Your task to perform on an android device: toggle data saver in the chrome app Image 0: 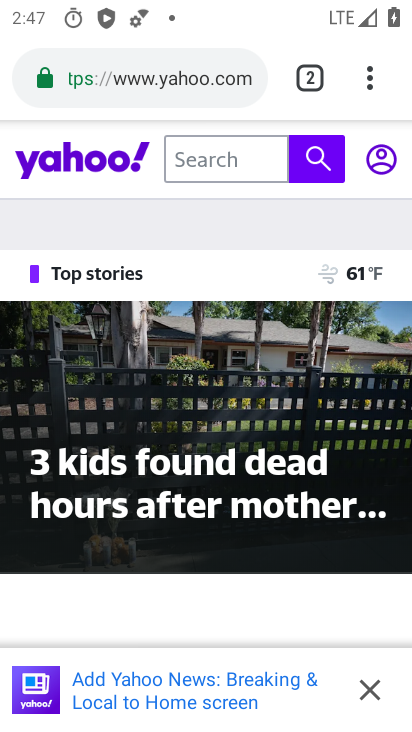
Step 0: press home button
Your task to perform on an android device: toggle data saver in the chrome app Image 1: 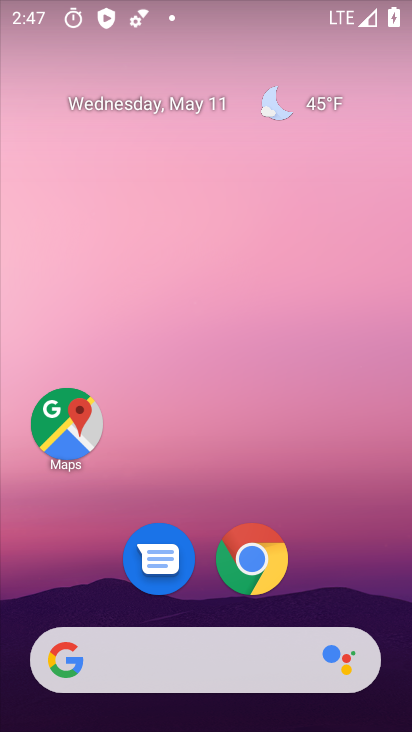
Step 1: click (242, 557)
Your task to perform on an android device: toggle data saver in the chrome app Image 2: 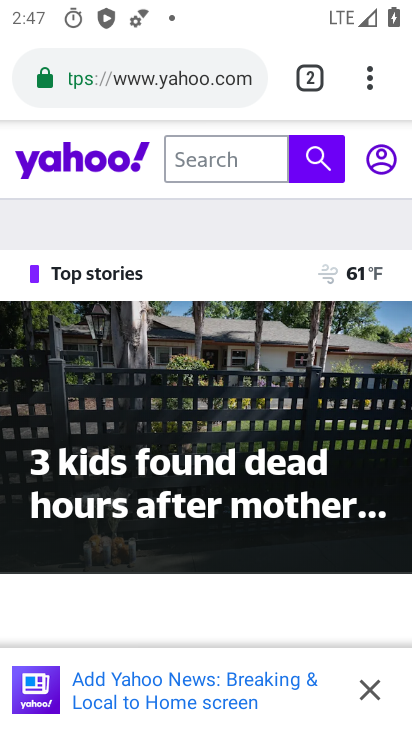
Step 2: click (367, 85)
Your task to perform on an android device: toggle data saver in the chrome app Image 3: 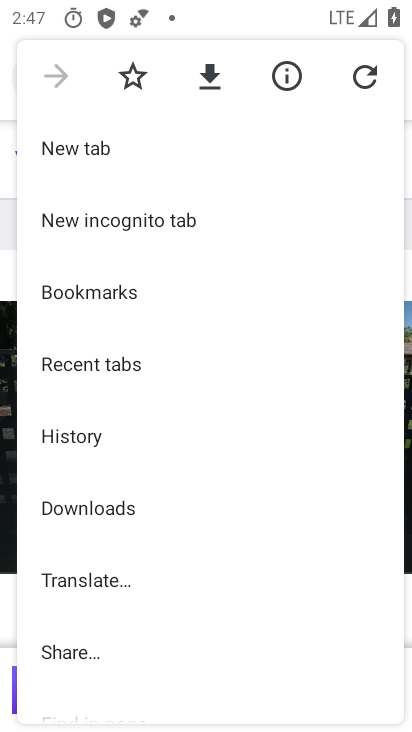
Step 3: drag from (182, 600) to (164, 243)
Your task to perform on an android device: toggle data saver in the chrome app Image 4: 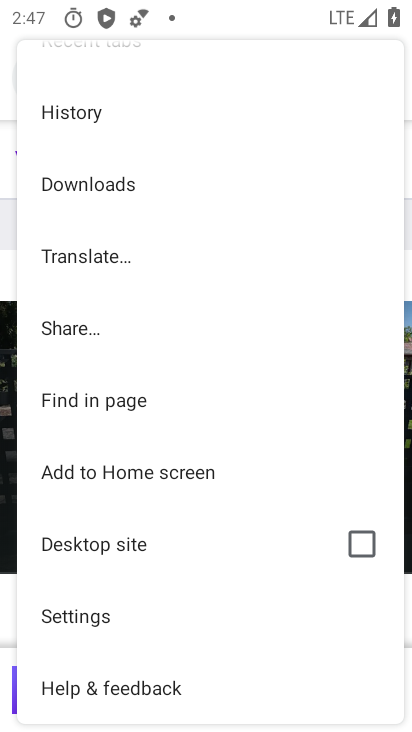
Step 4: click (115, 629)
Your task to perform on an android device: toggle data saver in the chrome app Image 5: 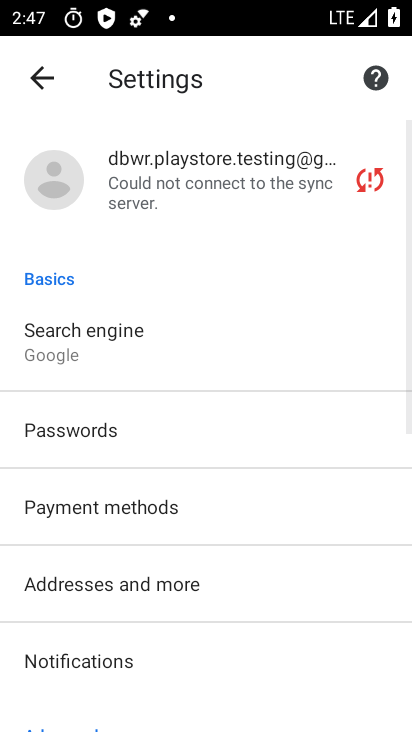
Step 5: drag from (148, 655) to (166, 238)
Your task to perform on an android device: toggle data saver in the chrome app Image 6: 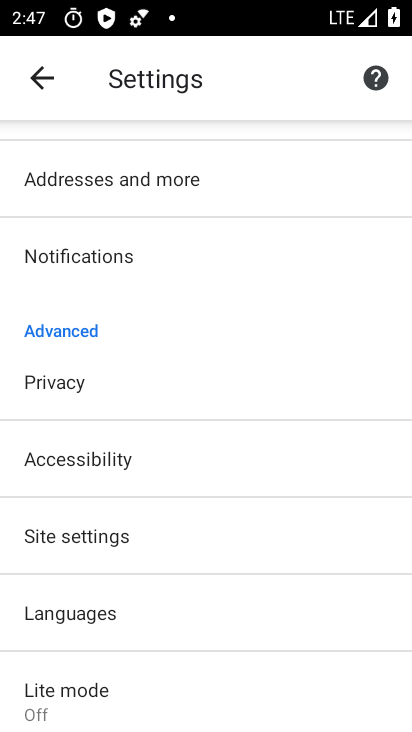
Step 6: click (108, 691)
Your task to perform on an android device: toggle data saver in the chrome app Image 7: 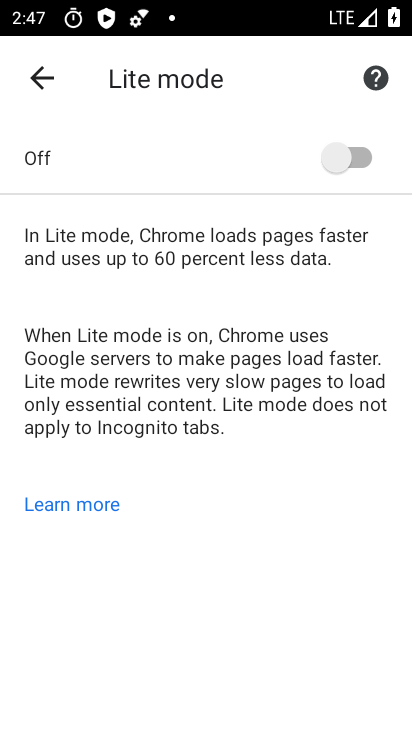
Step 7: click (346, 161)
Your task to perform on an android device: toggle data saver in the chrome app Image 8: 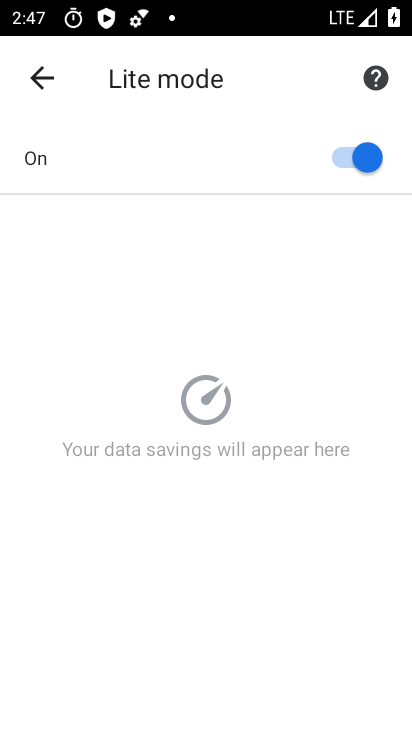
Step 8: task complete